Your task to perform on an android device: Open Google Maps and go to "Timeline" Image 0: 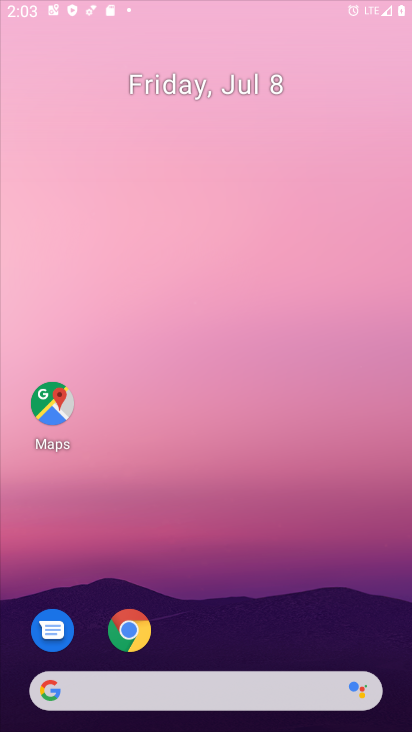
Step 0: press home button
Your task to perform on an android device: Open Google Maps and go to "Timeline" Image 1: 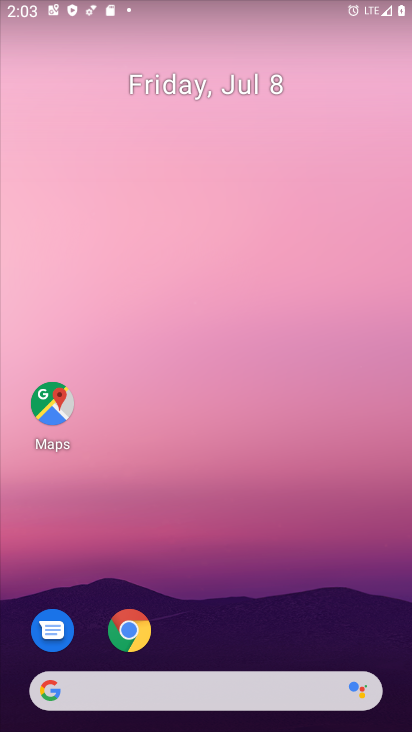
Step 1: drag from (226, 646) to (300, 44)
Your task to perform on an android device: Open Google Maps and go to "Timeline" Image 2: 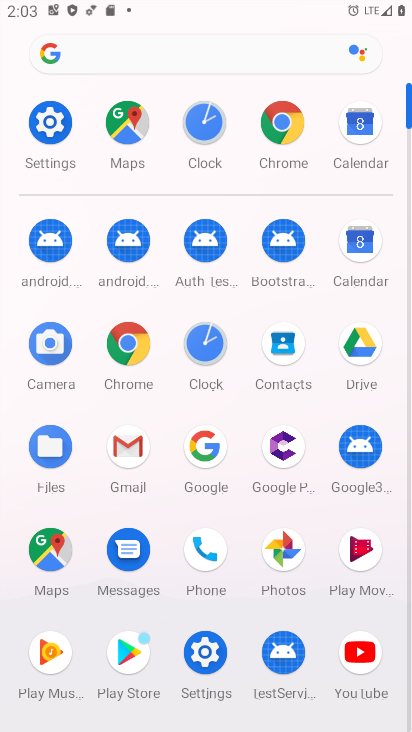
Step 2: click (46, 543)
Your task to perform on an android device: Open Google Maps and go to "Timeline" Image 3: 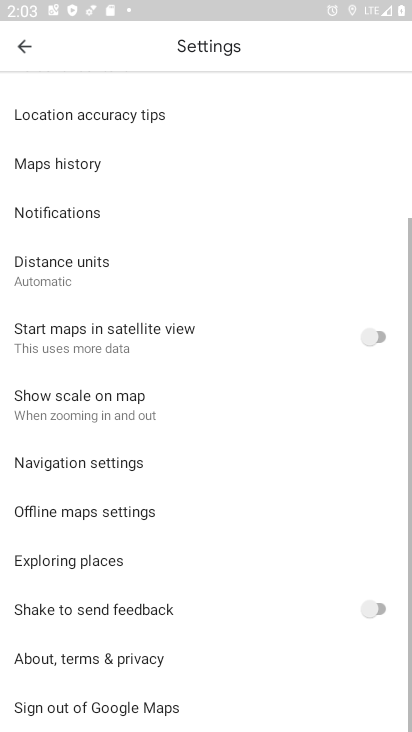
Step 3: click (24, 43)
Your task to perform on an android device: Open Google Maps and go to "Timeline" Image 4: 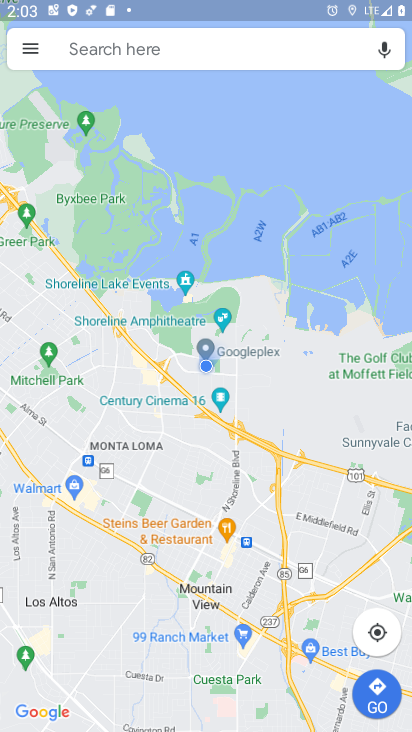
Step 4: click (29, 41)
Your task to perform on an android device: Open Google Maps and go to "Timeline" Image 5: 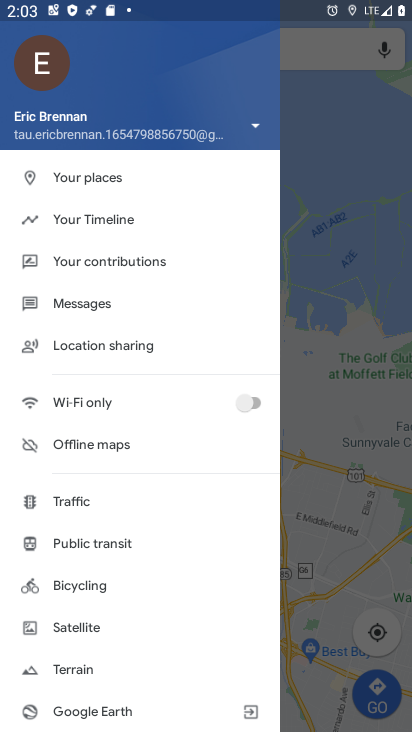
Step 5: click (108, 218)
Your task to perform on an android device: Open Google Maps and go to "Timeline" Image 6: 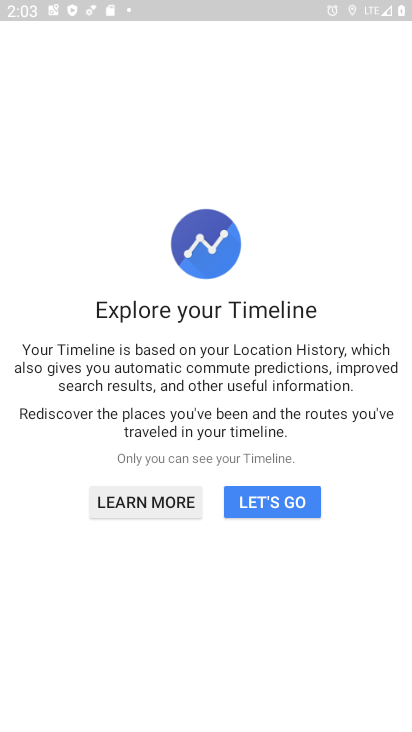
Step 6: click (278, 504)
Your task to perform on an android device: Open Google Maps and go to "Timeline" Image 7: 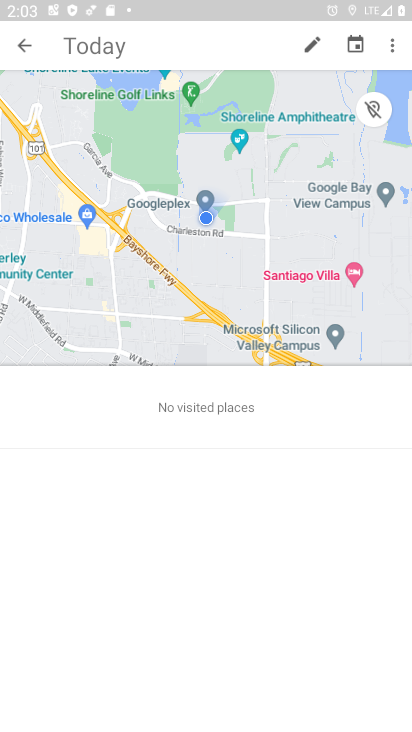
Step 7: task complete